Your task to perform on an android device: toggle show notifications on the lock screen Image 0: 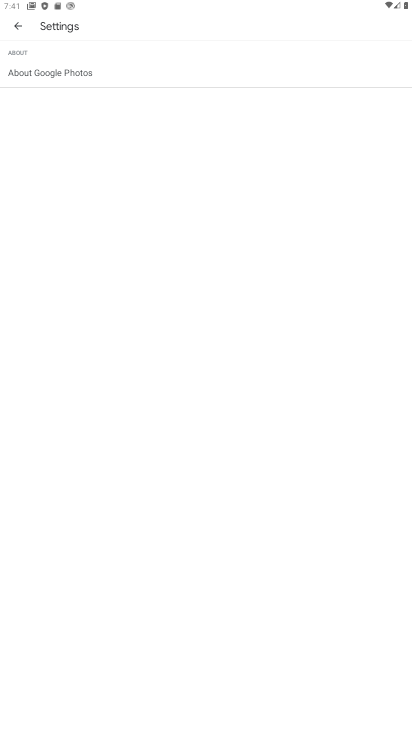
Step 0: press home button
Your task to perform on an android device: toggle show notifications on the lock screen Image 1: 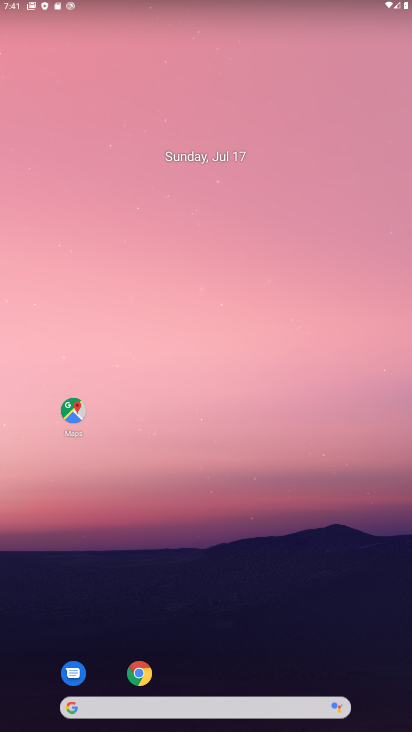
Step 1: drag from (272, 625) to (272, 186)
Your task to perform on an android device: toggle show notifications on the lock screen Image 2: 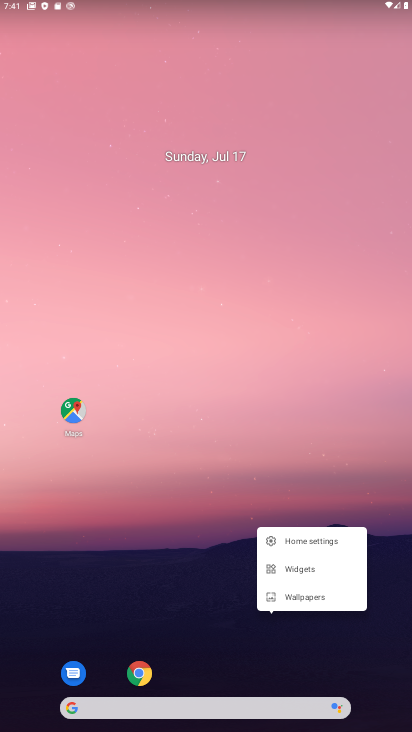
Step 2: click (212, 499)
Your task to perform on an android device: toggle show notifications on the lock screen Image 3: 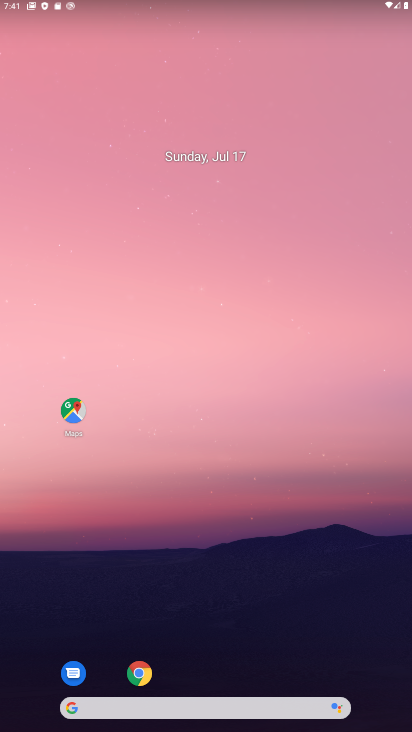
Step 3: drag from (248, 663) to (299, 145)
Your task to perform on an android device: toggle show notifications on the lock screen Image 4: 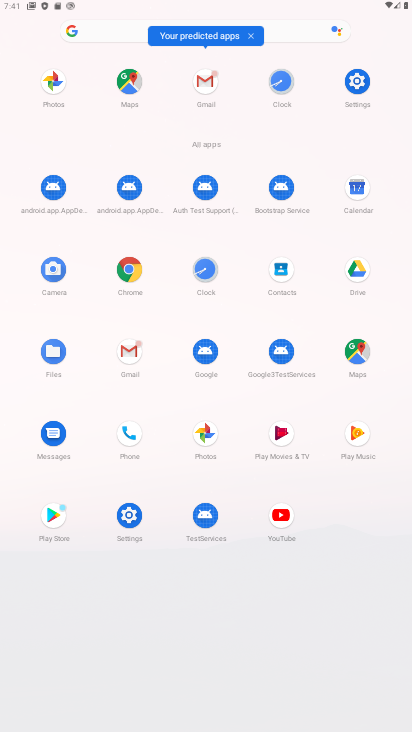
Step 4: click (352, 80)
Your task to perform on an android device: toggle show notifications on the lock screen Image 5: 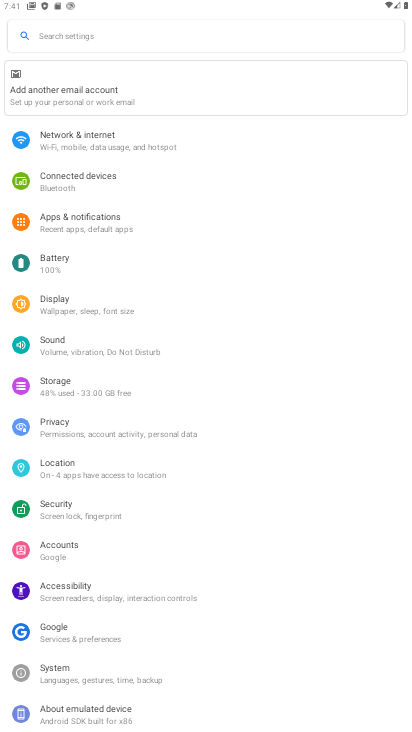
Step 5: click (102, 226)
Your task to perform on an android device: toggle show notifications on the lock screen Image 6: 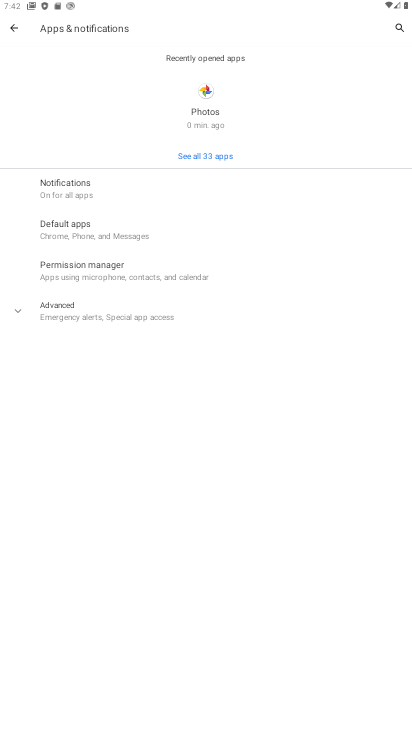
Step 6: click (98, 189)
Your task to perform on an android device: toggle show notifications on the lock screen Image 7: 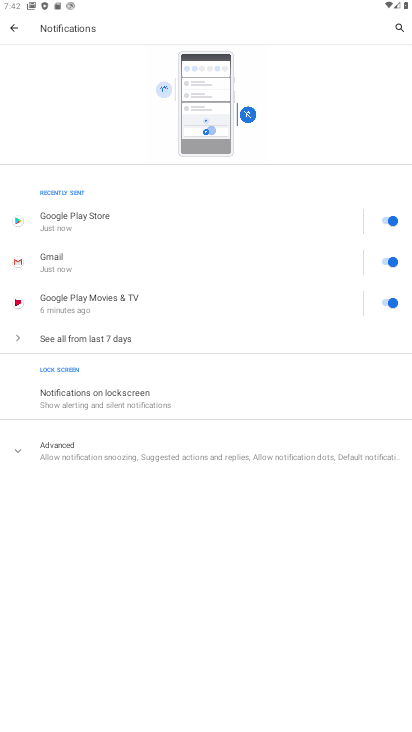
Step 7: click (107, 398)
Your task to perform on an android device: toggle show notifications on the lock screen Image 8: 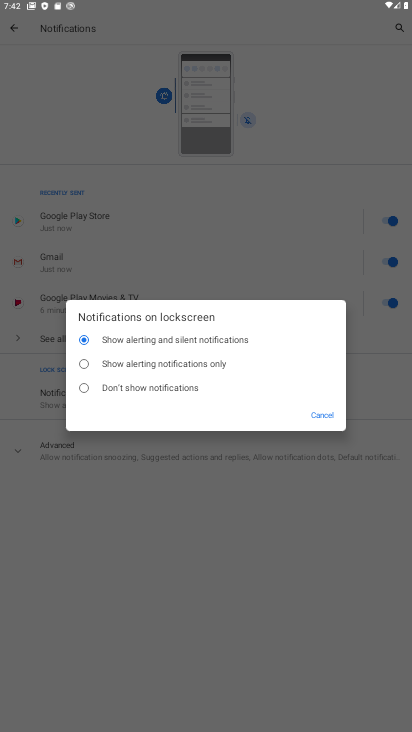
Step 8: click (108, 361)
Your task to perform on an android device: toggle show notifications on the lock screen Image 9: 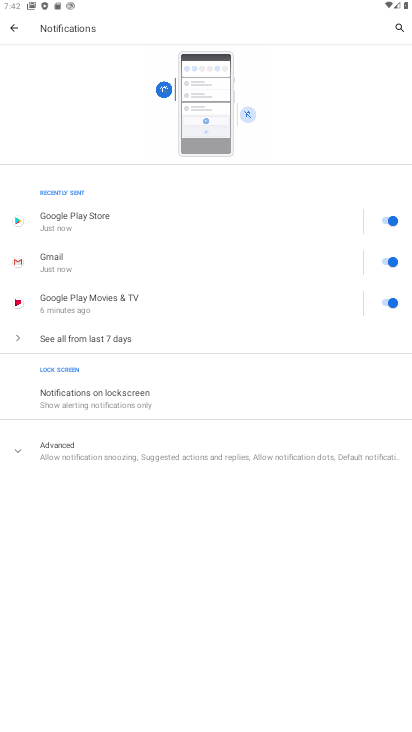
Step 9: task complete